Your task to perform on an android device: Search for pizza restaurants on Maps Image 0: 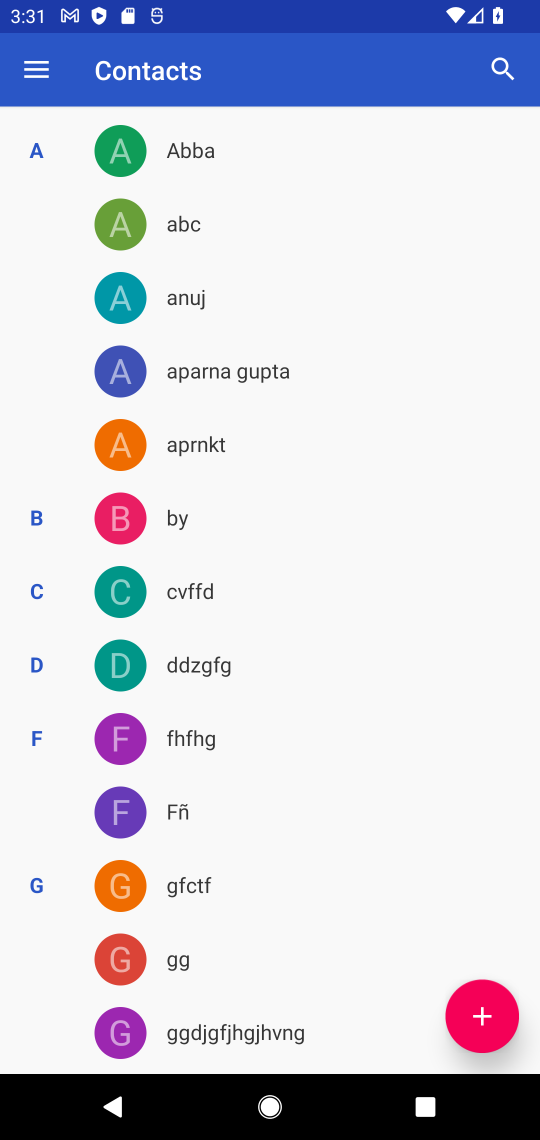
Step 0: press home button
Your task to perform on an android device: Search for pizza restaurants on Maps Image 1: 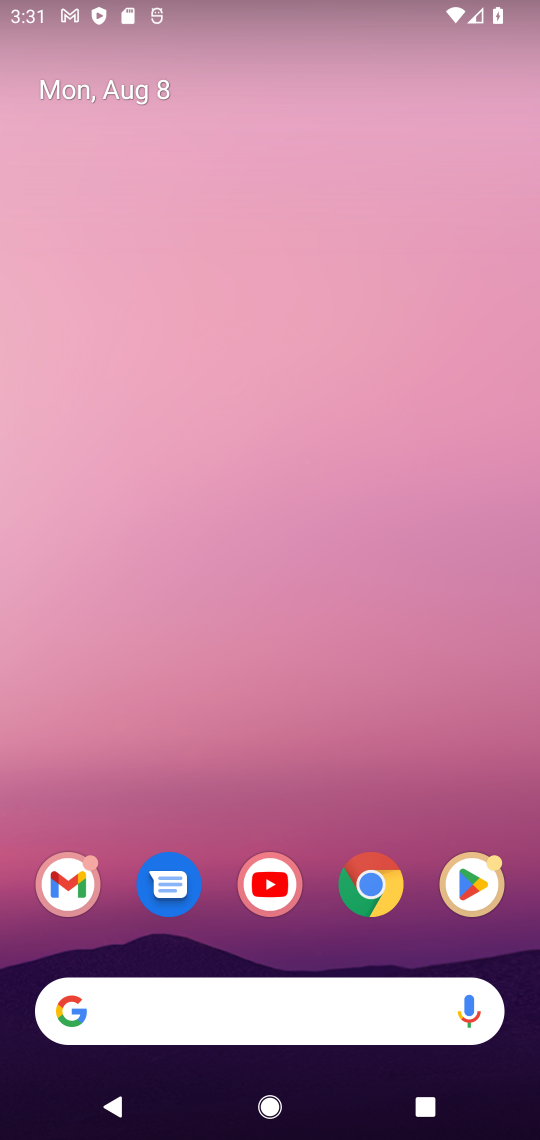
Step 1: drag from (312, 660) to (299, 0)
Your task to perform on an android device: Search for pizza restaurants on Maps Image 2: 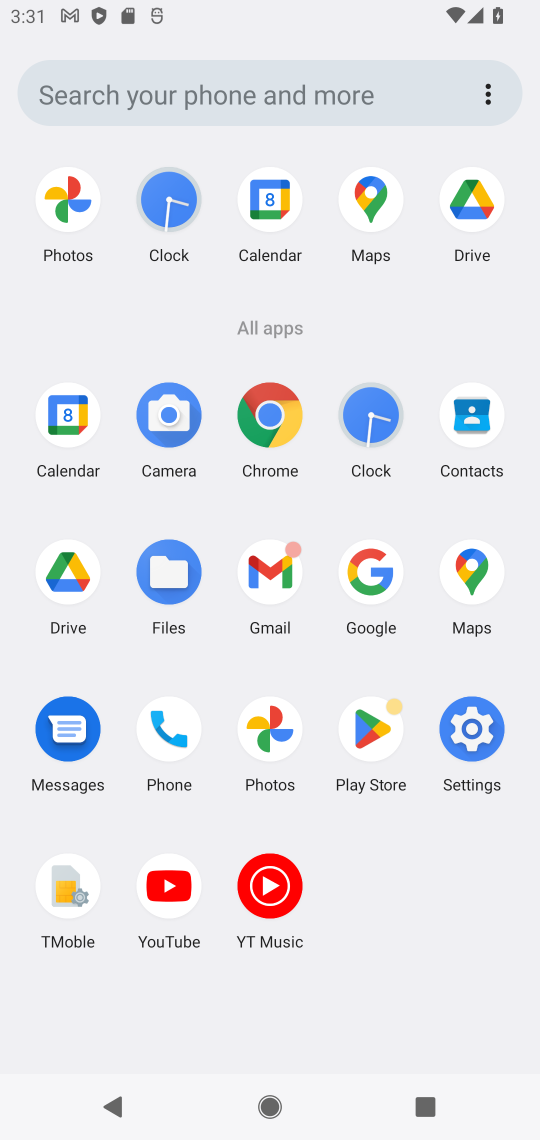
Step 2: click (474, 564)
Your task to perform on an android device: Search for pizza restaurants on Maps Image 3: 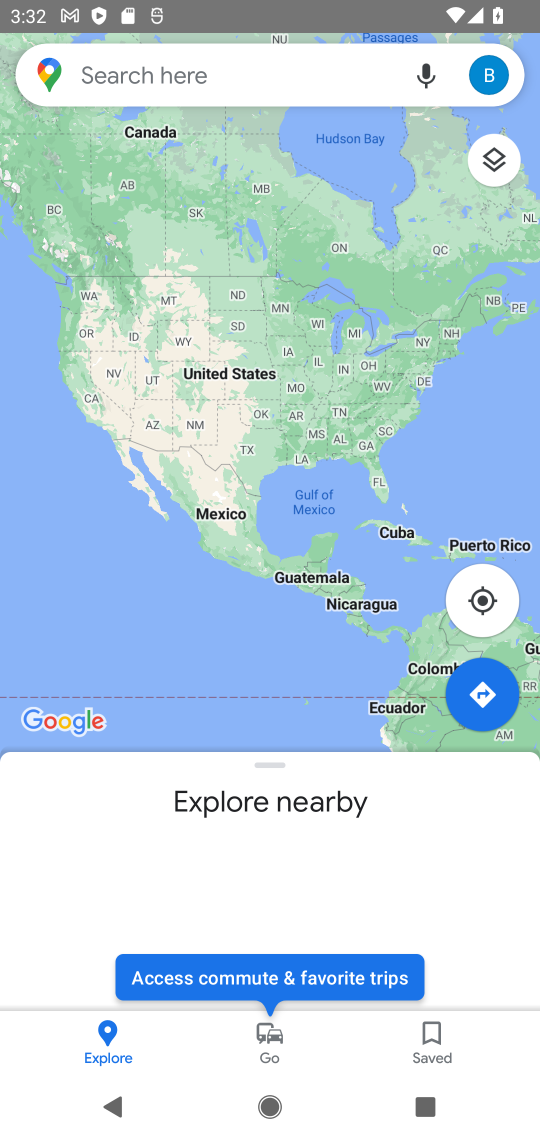
Step 3: click (262, 78)
Your task to perform on an android device: Search for pizza restaurants on Maps Image 4: 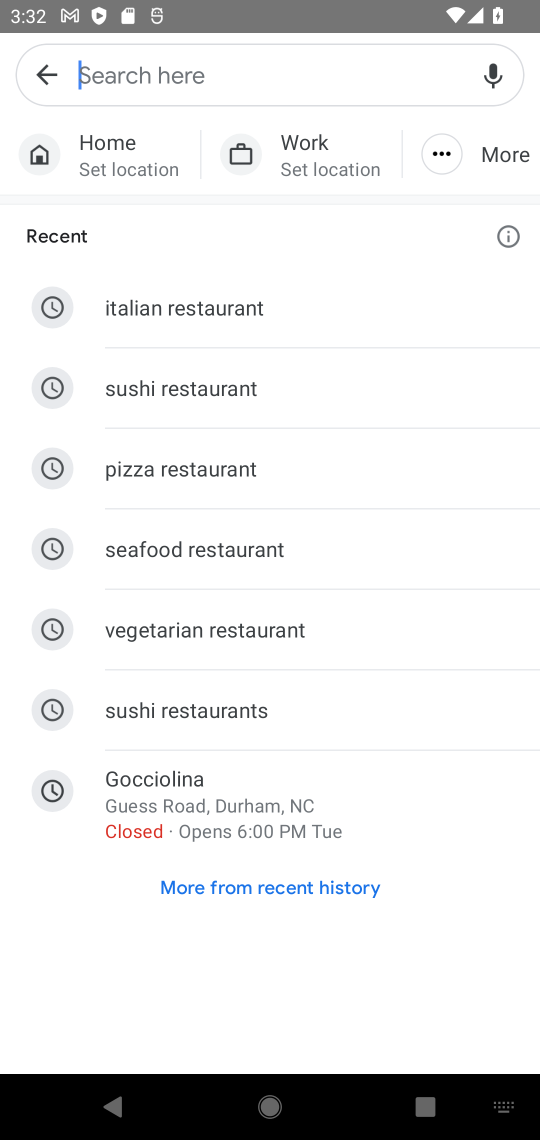
Step 4: click (230, 459)
Your task to perform on an android device: Search for pizza restaurants on Maps Image 5: 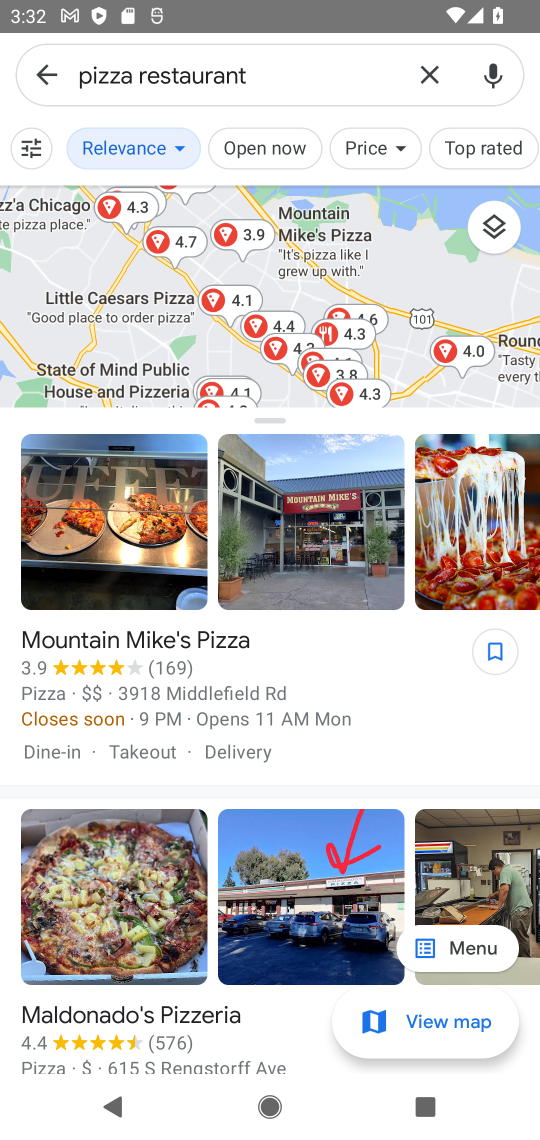
Step 5: task complete